Your task to perform on an android device: turn smart compose on in the gmail app Image 0: 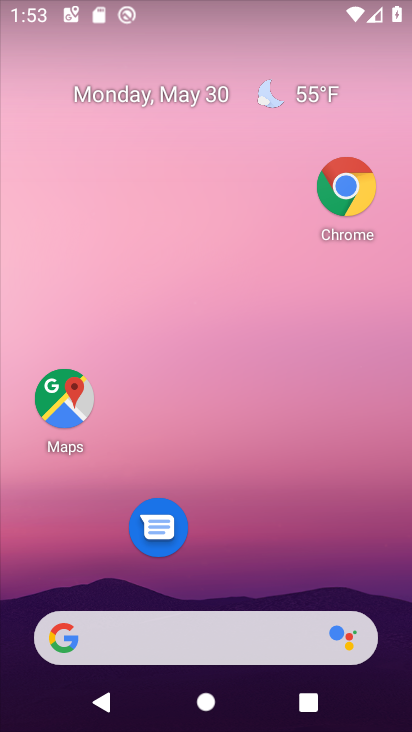
Step 0: drag from (245, 564) to (251, 183)
Your task to perform on an android device: turn smart compose on in the gmail app Image 1: 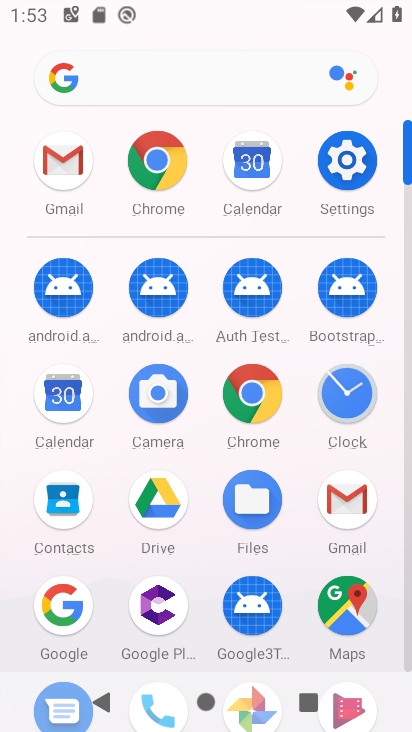
Step 1: click (346, 503)
Your task to perform on an android device: turn smart compose on in the gmail app Image 2: 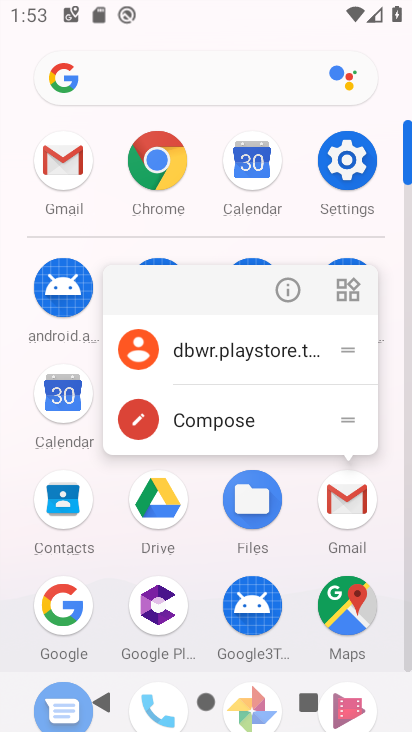
Step 2: click (216, 352)
Your task to perform on an android device: turn smart compose on in the gmail app Image 3: 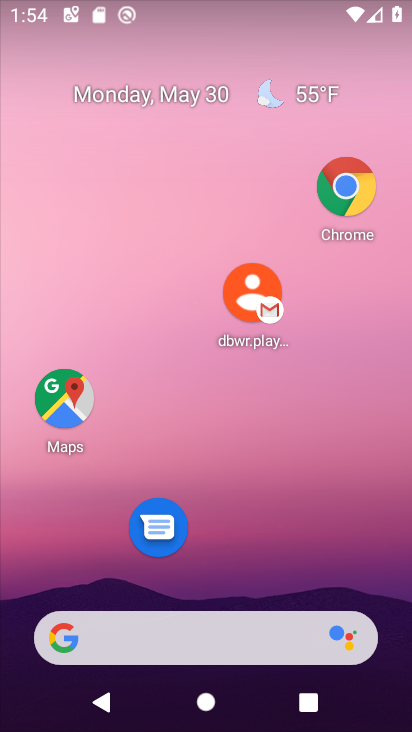
Step 3: click (246, 317)
Your task to perform on an android device: turn smart compose on in the gmail app Image 4: 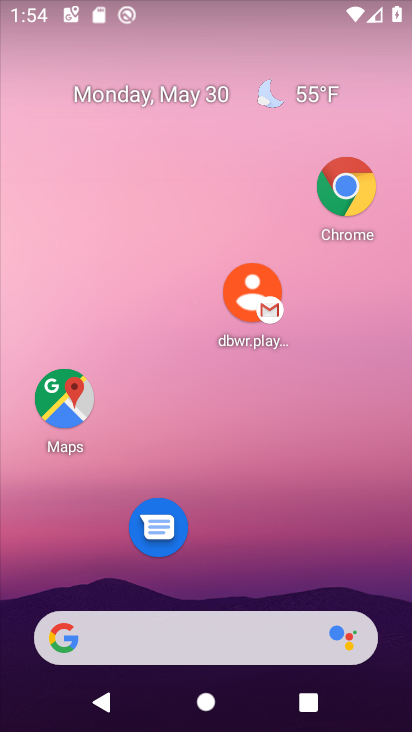
Step 4: drag from (251, 276) to (190, 64)
Your task to perform on an android device: turn smart compose on in the gmail app Image 5: 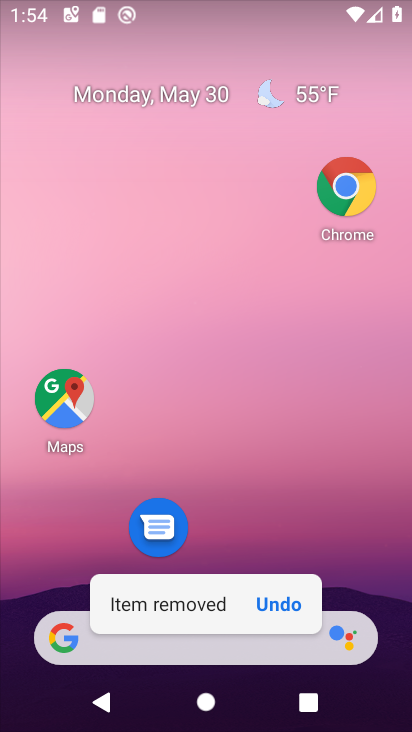
Step 5: drag from (211, 547) to (265, 40)
Your task to perform on an android device: turn smart compose on in the gmail app Image 6: 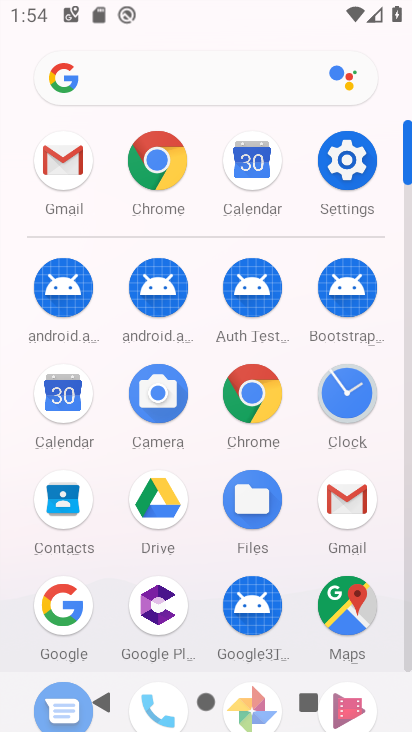
Step 6: click (337, 483)
Your task to perform on an android device: turn smart compose on in the gmail app Image 7: 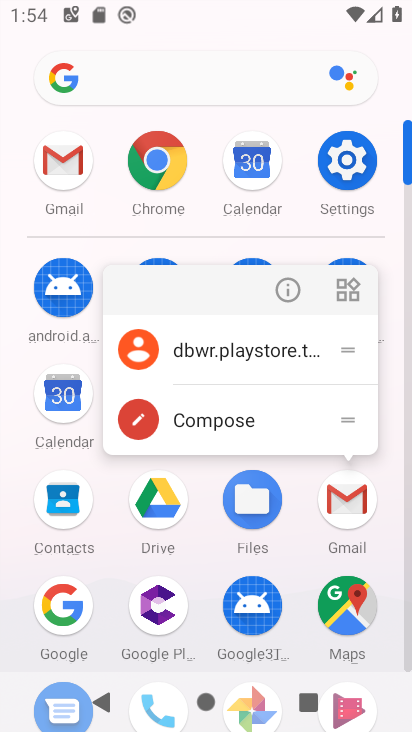
Step 7: click (284, 289)
Your task to perform on an android device: turn smart compose on in the gmail app Image 8: 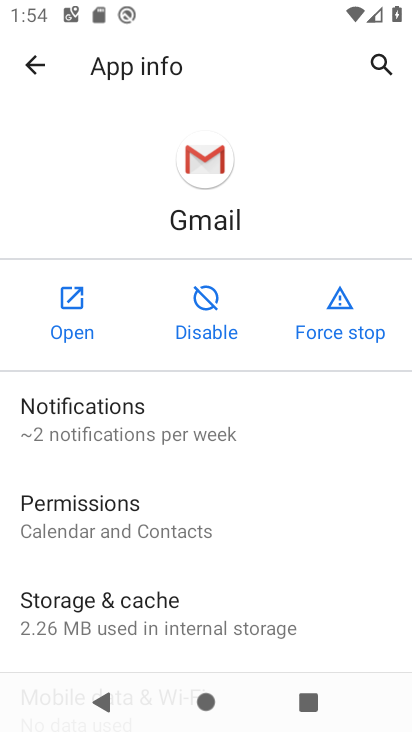
Step 8: click (55, 307)
Your task to perform on an android device: turn smart compose on in the gmail app Image 9: 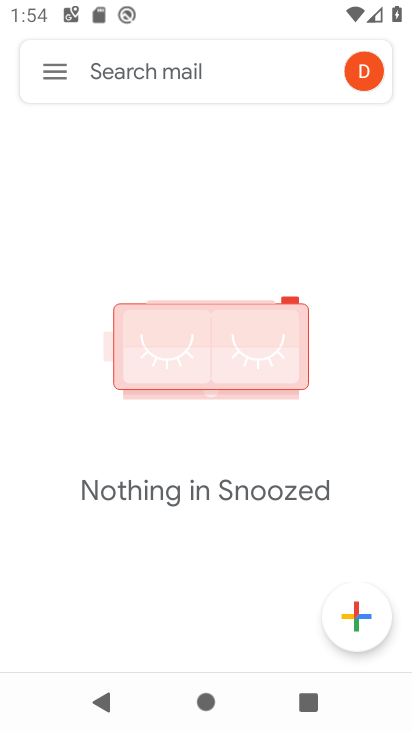
Step 9: click (66, 73)
Your task to perform on an android device: turn smart compose on in the gmail app Image 10: 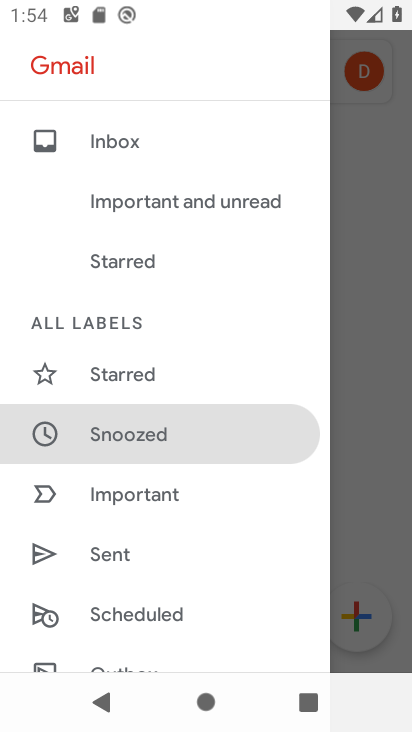
Step 10: drag from (139, 536) to (215, 2)
Your task to perform on an android device: turn smart compose on in the gmail app Image 11: 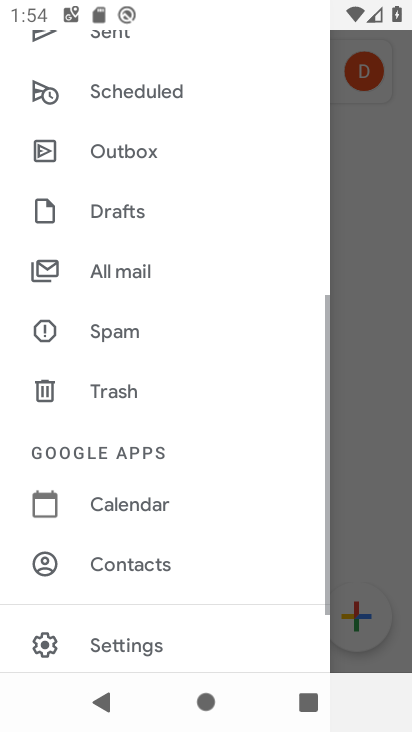
Step 11: drag from (167, 545) to (227, 67)
Your task to perform on an android device: turn smart compose on in the gmail app Image 12: 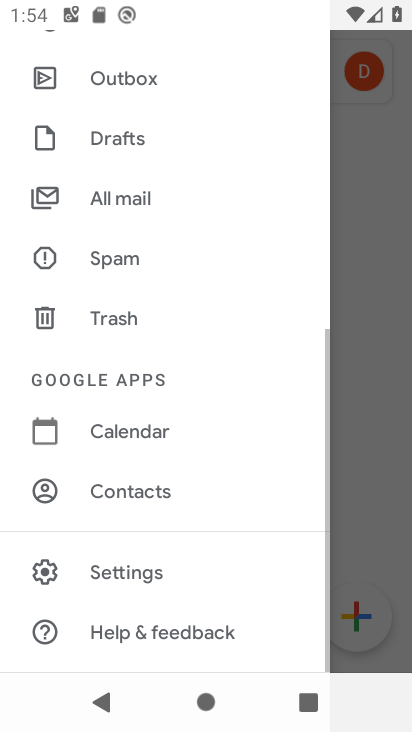
Step 12: click (131, 580)
Your task to perform on an android device: turn smart compose on in the gmail app Image 13: 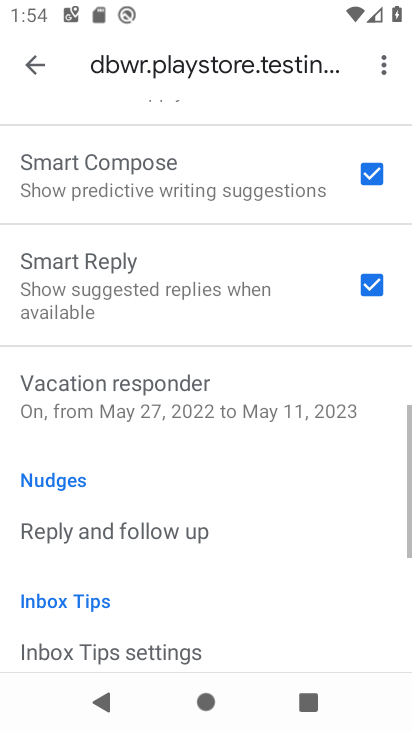
Step 13: task complete